Your task to perform on an android device: Open notification settings Image 0: 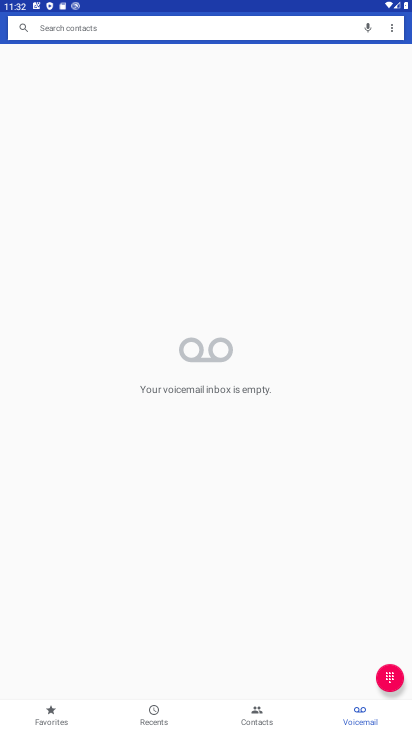
Step 0: press home button
Your task to perform on an android device: Open notification settings Image 1: 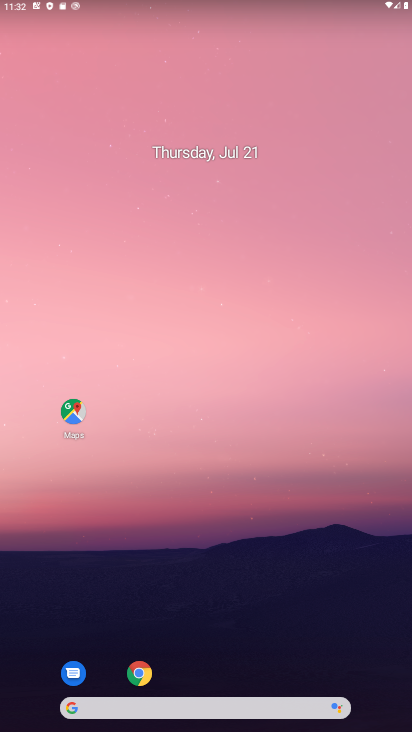
Step 1: drag from (236, 648) to (242, 128)
Your task to perform on an android device: Open notification settings Image 2: 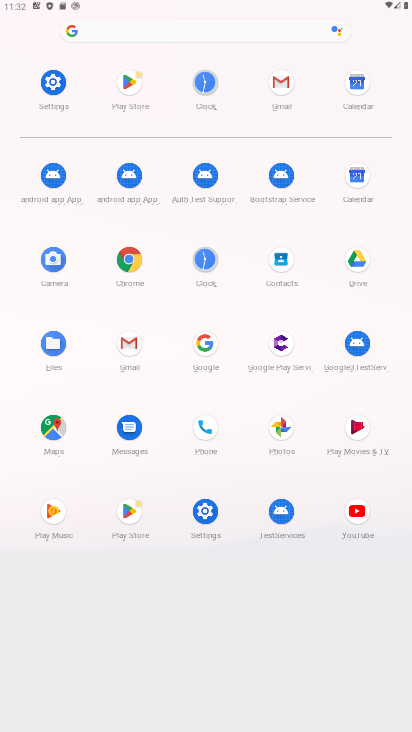
Step 2: click (50, 80)
Your task to perform on an android device: Open notification settings Image 3: 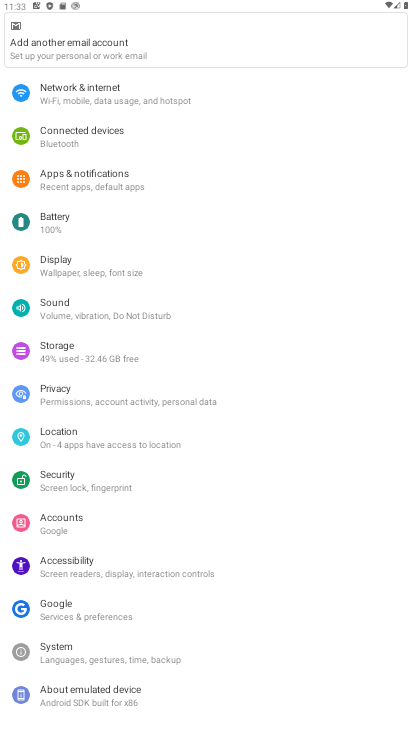
Step 3: click (132, 174)
Your task to perform on an android device: Open notification settings Image 4: 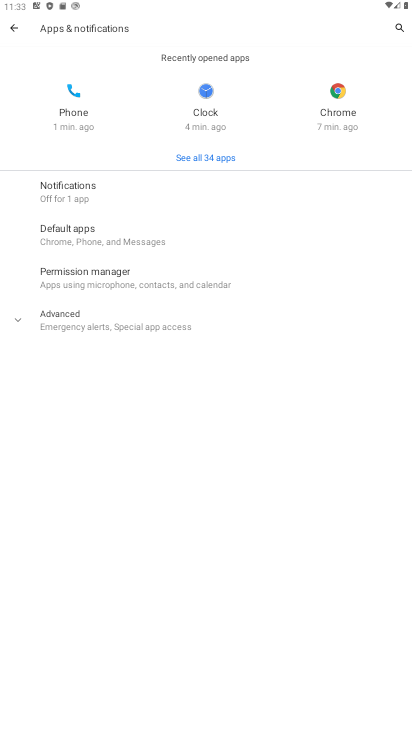
Step 4: click (66, 183)
Your task to perform on an android device: Open notification settings Image 5: 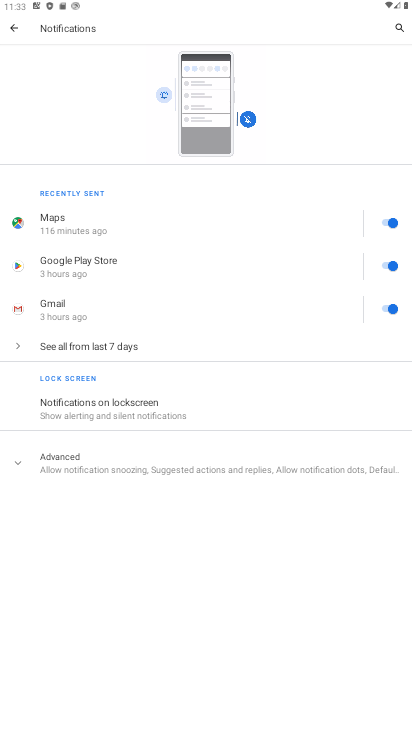
Step 5: task complete